Your task to perform on an android device: Open Chrome and go to settings Image 0: 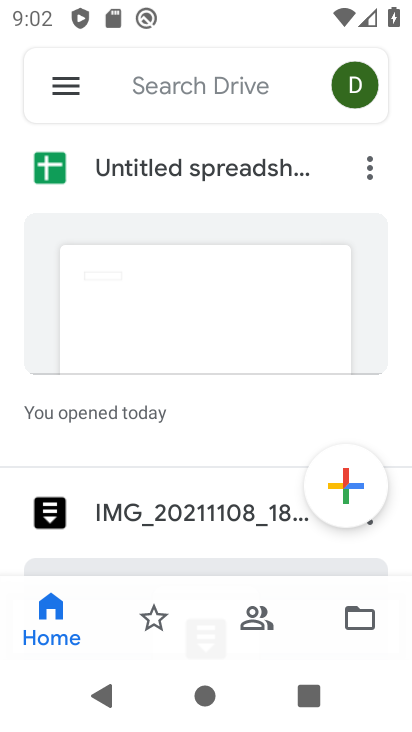
Step 0: press back button
Your task to perform on an android device: Open Chrome and go to settings Image 1: 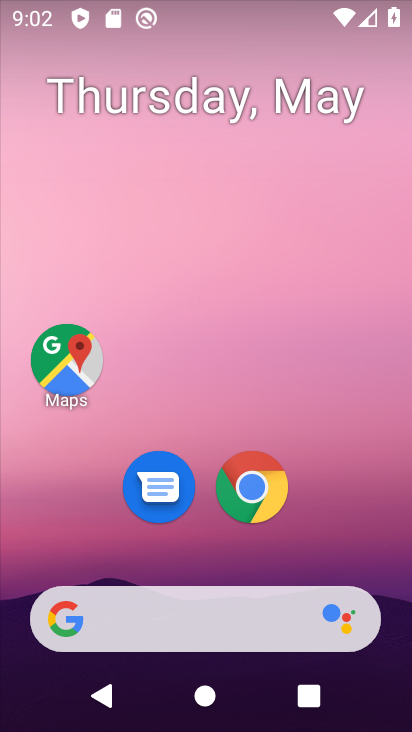
Step 1: click (266, 478)
Your task to perform on an android device: Open Chrome and go to settings Image 2: 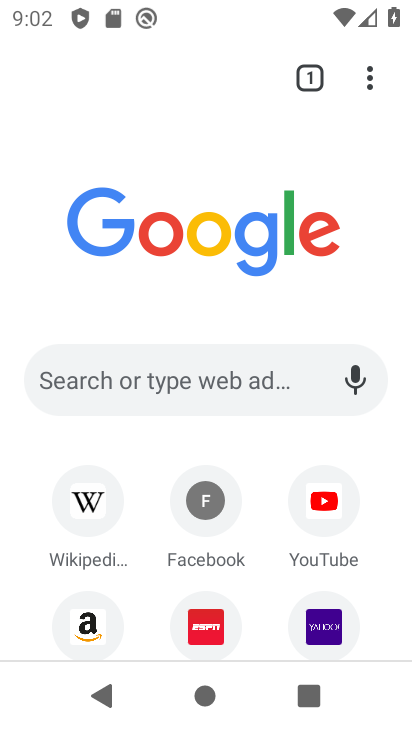
Step 2: task complete